Your task to perform on an android device: What's the weather going to be this weekend? Image 0: 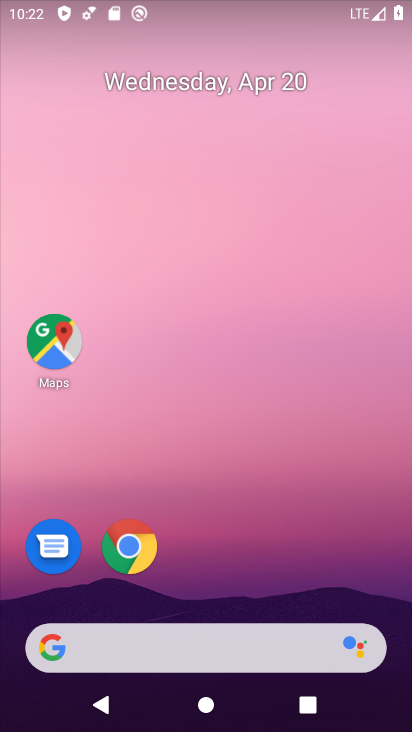
Step 0: click (123, 559)
Your task to perform on an android device: What's the weather going to be this weekend? Image 1: 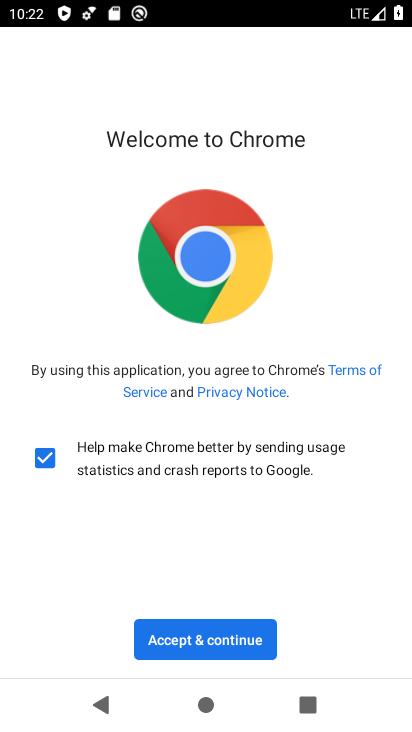
Step 1: click (185, 647)
Your task to perform on an android device: What's the weather going to be this weekend? Image 2: 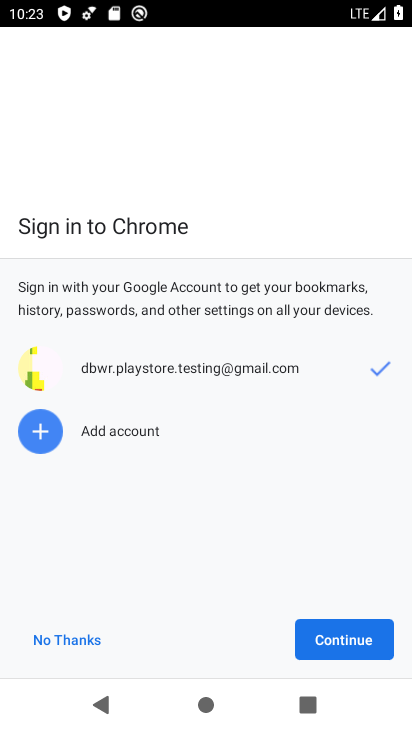
Step 2: click (361, 637)
Your task to perform on an android device: What's the weather going to be this weekend? Image 3: 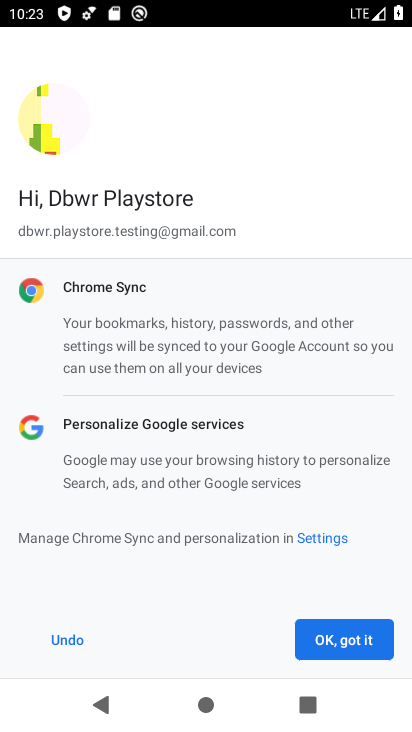
Step 3: click (361, 637)
Your task to perform on an android device: What's the weather going to be this weekend? Image 4: 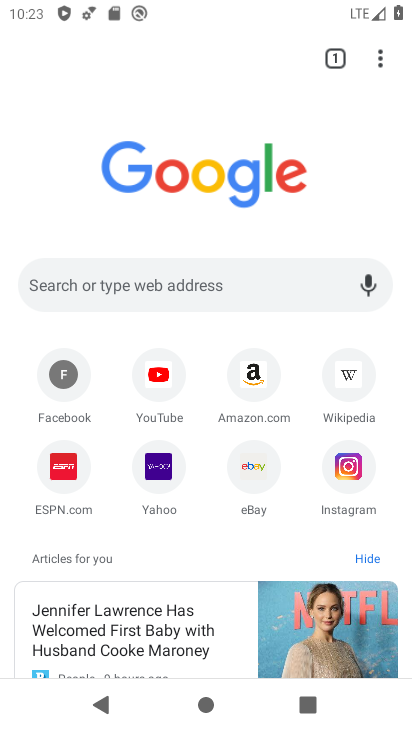
Step 4: click (159, 280)
Your task to perform on an android device: What's the weather going to be this weekend? Image 5: 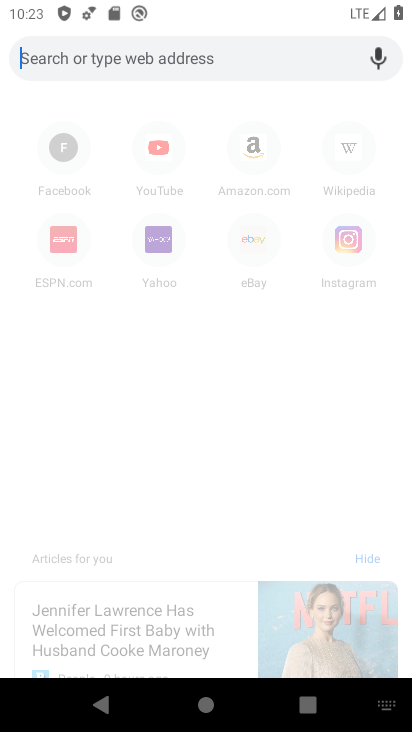
Step 5: click (53, 60)
Your task to perform on an android device: What's the weather going to be this weekend? Image 6: 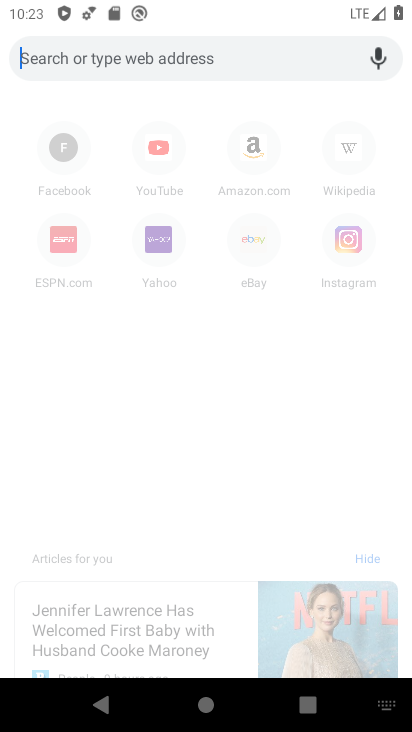
Step 6: type "whats the weather going to be this weekend"
Your task to perform on an android device: What's the weather going to be this weekend? Image 7: 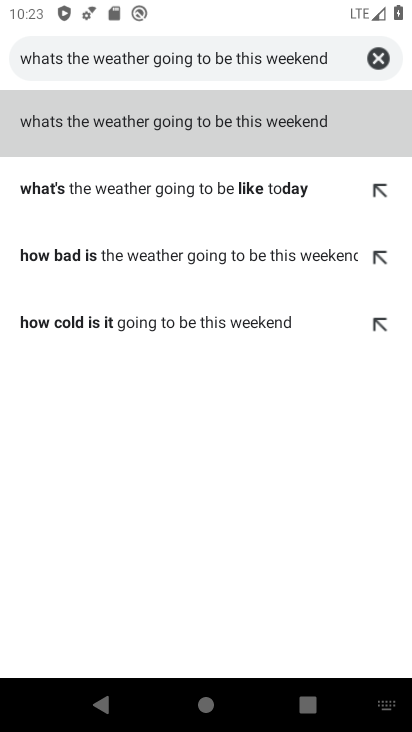
Step 7: click (216, 125)
Your task to perform on an android device: What's the weather going to be this weekend? Image 8: 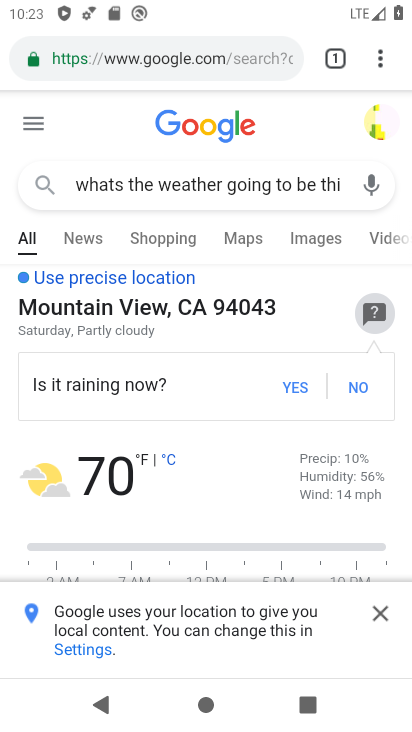
Step 8: task complete